Your task to perform on an android device: Go to ESPN.com Image 0: 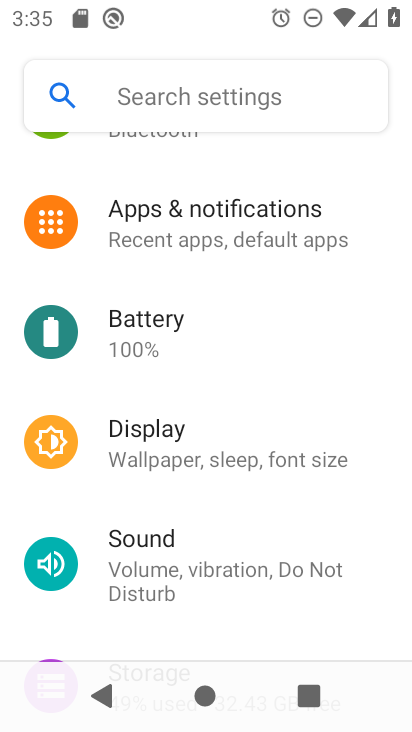
Step 0: press home button
Your task to perform on an android device: Go to ESPN.com Image 1: 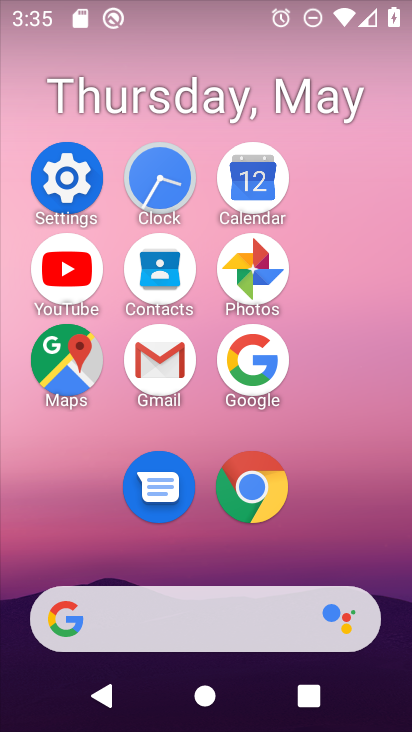
Step 1: click (253, 511)
Your task to perform on an android device: Go to ESPN.com Image 2: 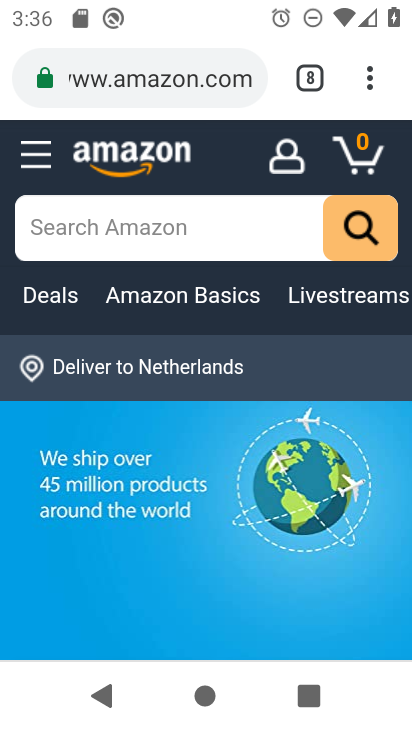
Step 2: click (315, 79)
Your task to perform on an android device: Go to ESPN.com Image 3: 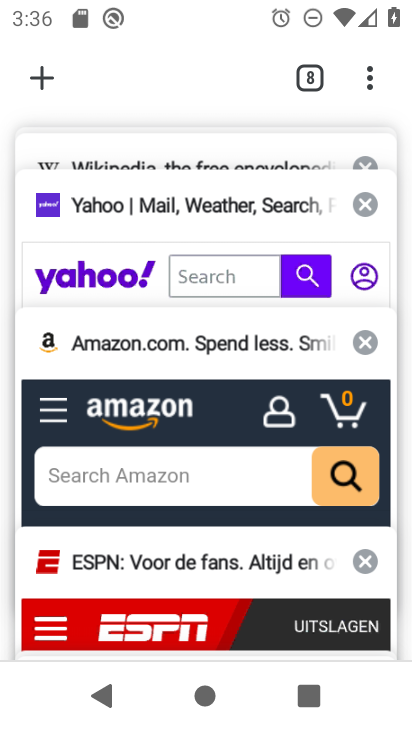
Step 3: click (148, 560)
Your task to perform on an android device: Go to ESPN.com Image 4: 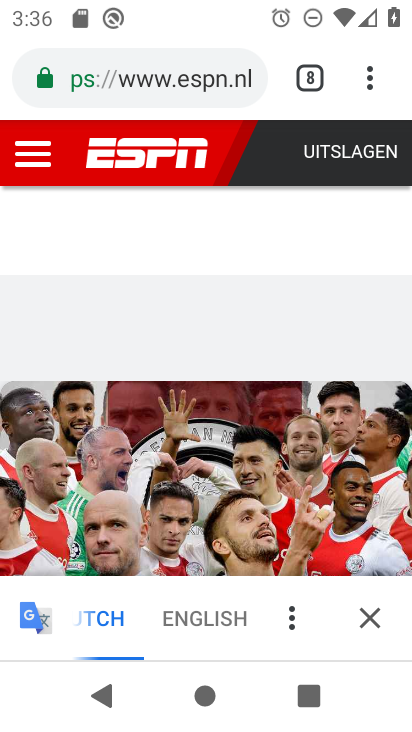
Step 4: task complete